Your task to perform on an android device: Go to sound settings Image 0: 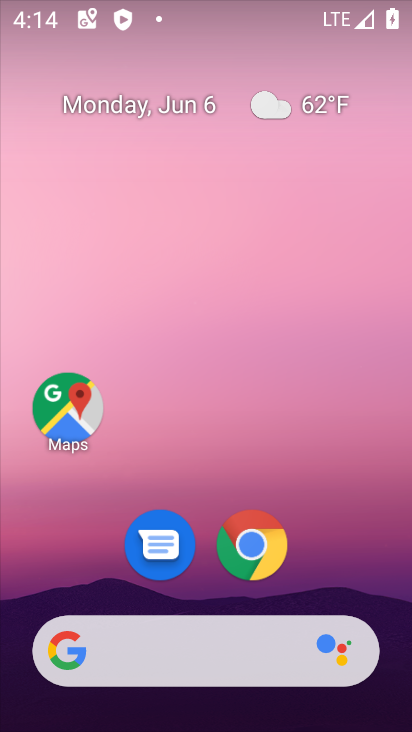
Step 0: drag from (215, 714) to (219, 78)
Your task to perform on an android device: Go to sound settings Image 1: 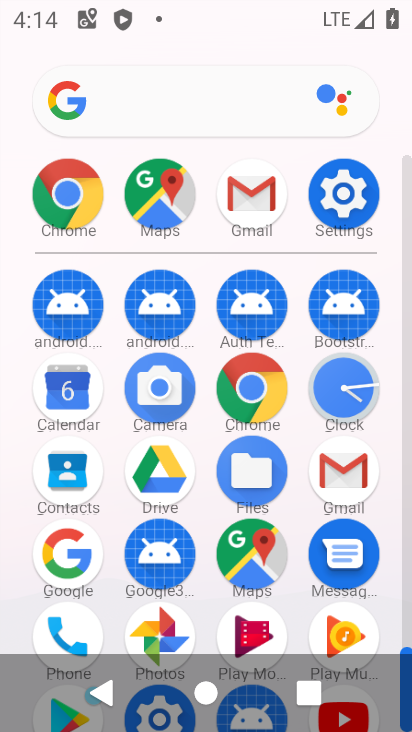
Step 1: click (342, 200)
Your task to perform on an android device: Go to sound settings Image 2: 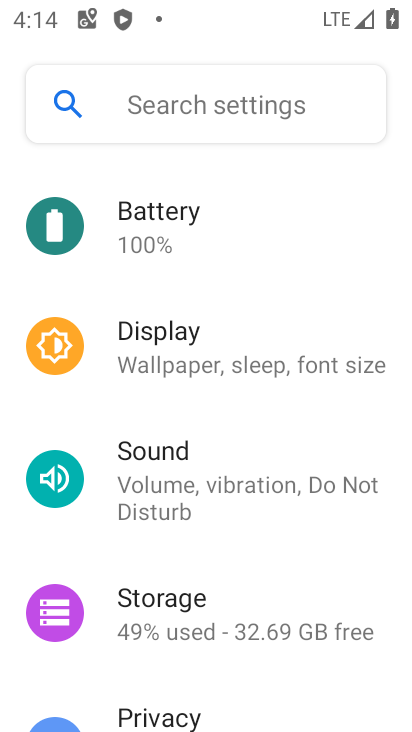
Step 2: click (152, 478)
Your task to perform on an android device: Go to sound settings Image 3: 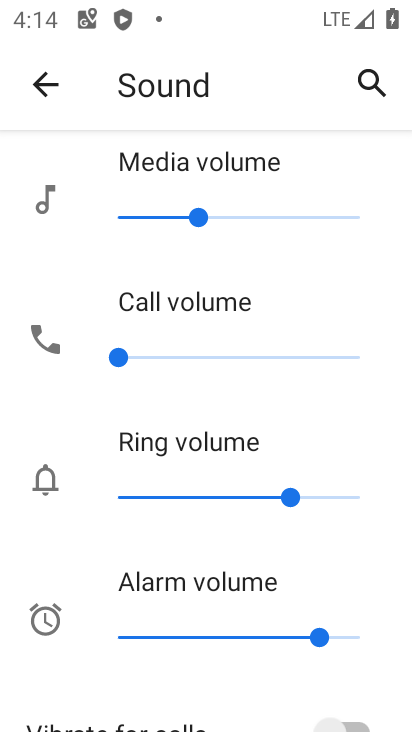
Step 3: task complete